Your task to perform on an android device: change notification settings in the gmail app Image 0: 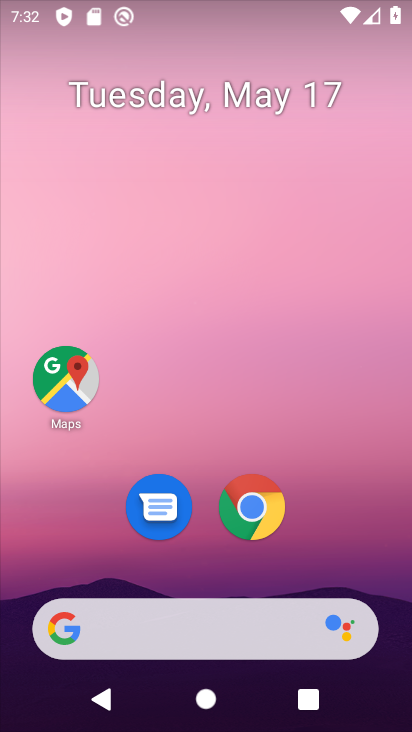
Step 0: drag from (346, 575) to (359, 24)
Your task to perform on an android device: change notification settings in the gmail app Image 1: 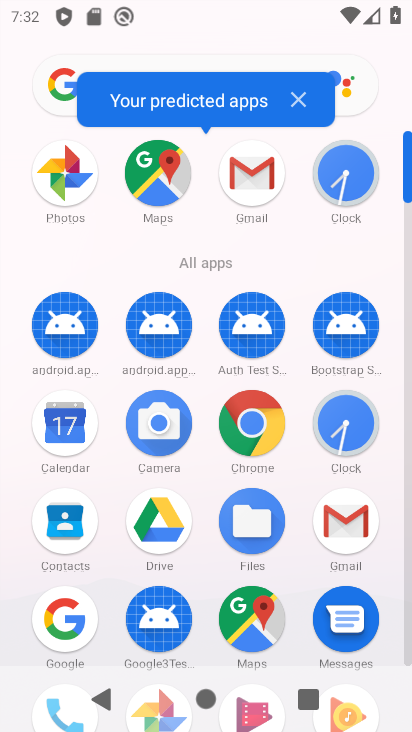
Step 1: click (253, 190)
Your task to perform on an android device: change notification settings in the gmail app Image 2: 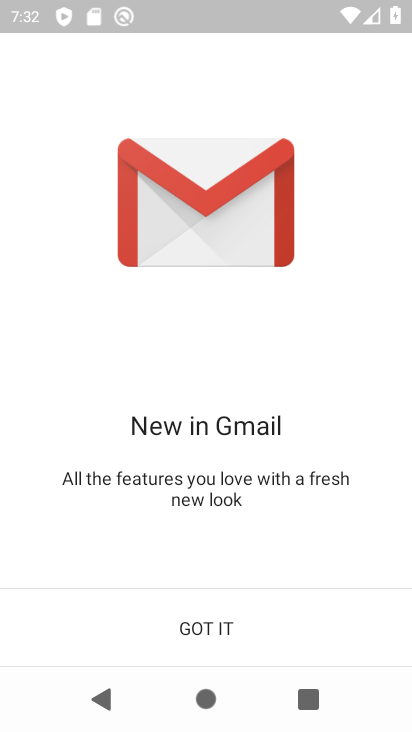
Step 2: click (209, 624)
Your task to perform on an android device: change notification settings in the gmail app Image 3: 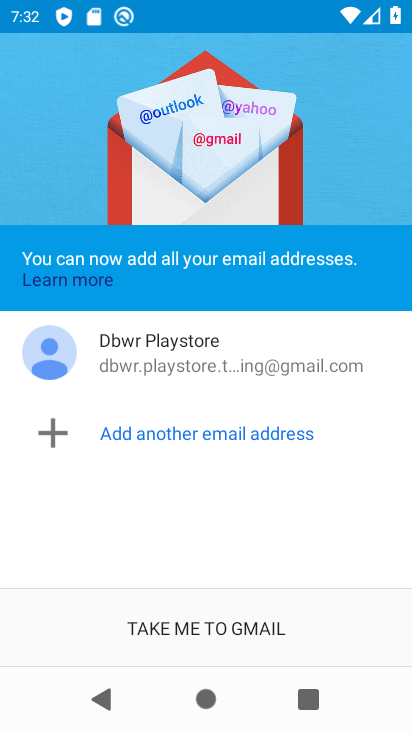
Step 3: click (201, 632)
Your task to perform on an android device: change notification settings in the gmail app Image 4: 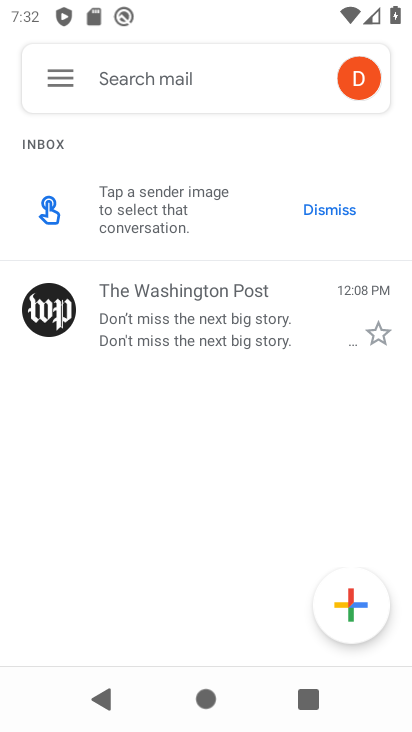
Step 4: click (54, 63)
Your task to perform on an android device: change notification settings in the gmail app Image 5: 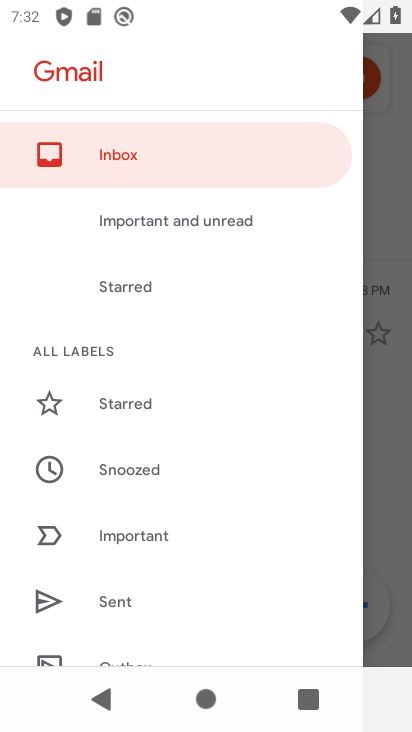
Step 5: drag from (236, 607) to (194, 83)
Your task to perform on an android device: change notification settings in the gmail app Image 6: 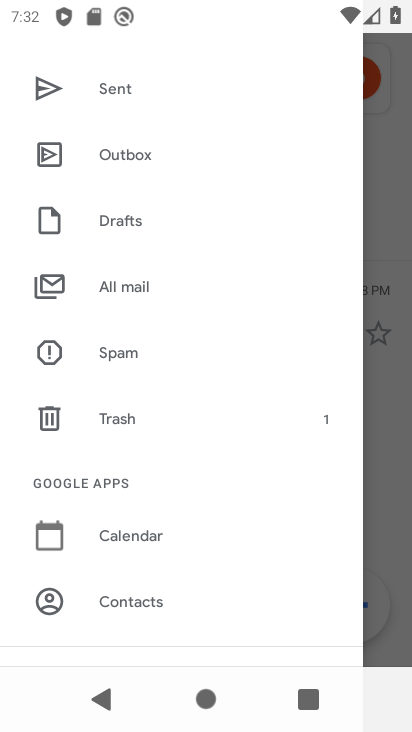
Step 6: drag from (231, 561) to (189, 194)
Your task to perform on an android device: change notification settings in the gmail app Image 7: 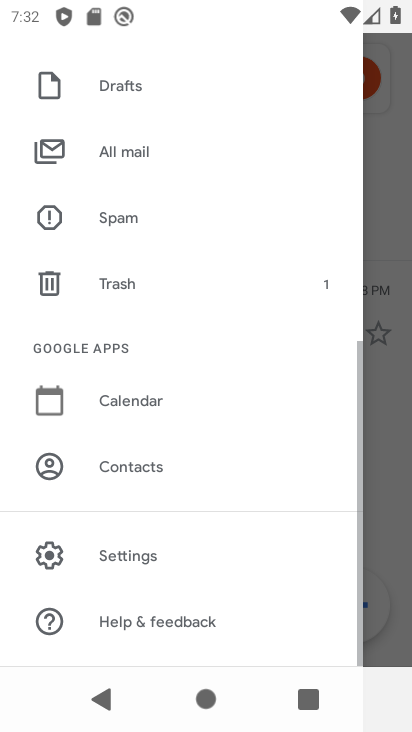
Step 7: click (107, 561)
Your task to perform on an android device: change notification settings in the gmail app Image 8: 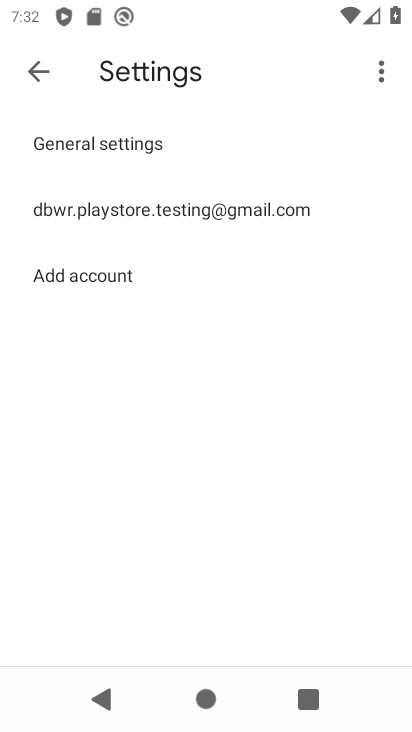
Step 8: click (83, 140)
Your task to perform on an android device: change notification settings in the gmail app Image 9: 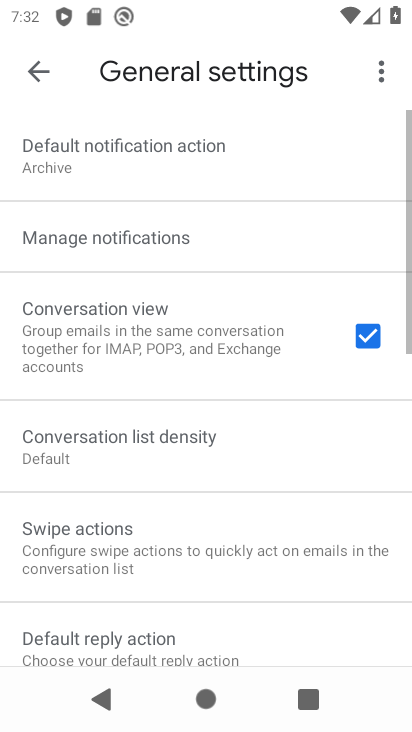
Step 9: click (91, 236)
Your task to perform on an android device: change notification settings in the gmail app Image 10: 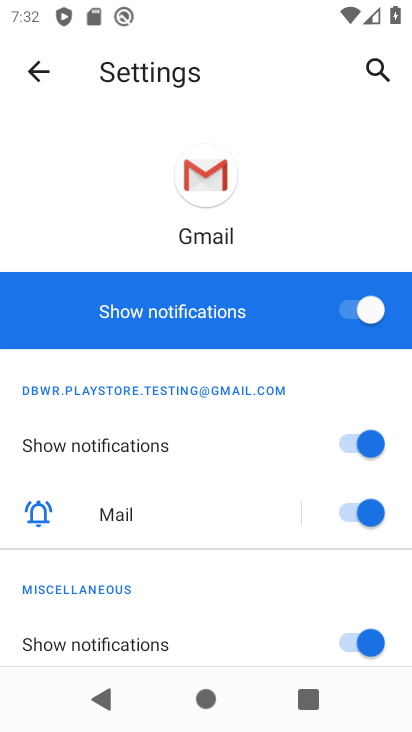
Step 10: click (367, 310)
Your task to perform on an android device: change notification settings in the gmail app Image 11: 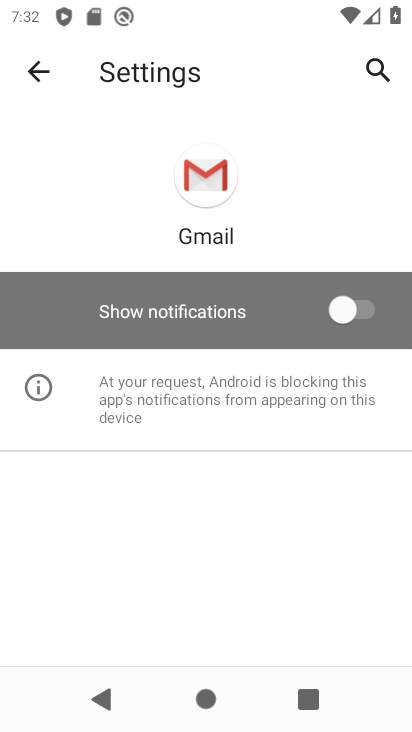
Step 11: task complete